Your task to perform on an android device: Open the calendar app, open the side menu, and click the "Day" option Image 0: 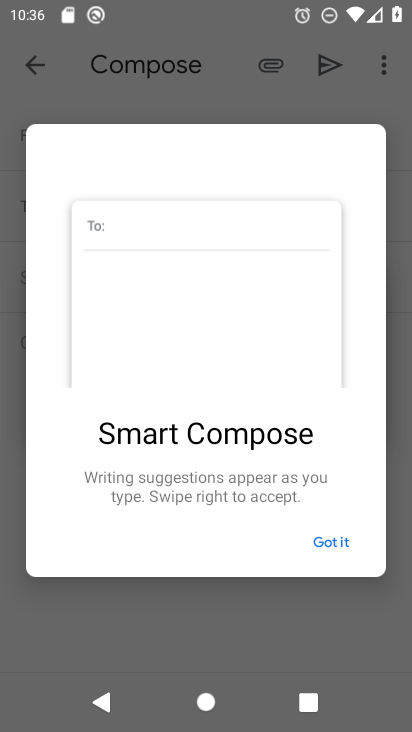
Step 0: press home button
Your task to perform on an android device: Open the calendar app, open the side menu, and click the "Day" option Image 1: 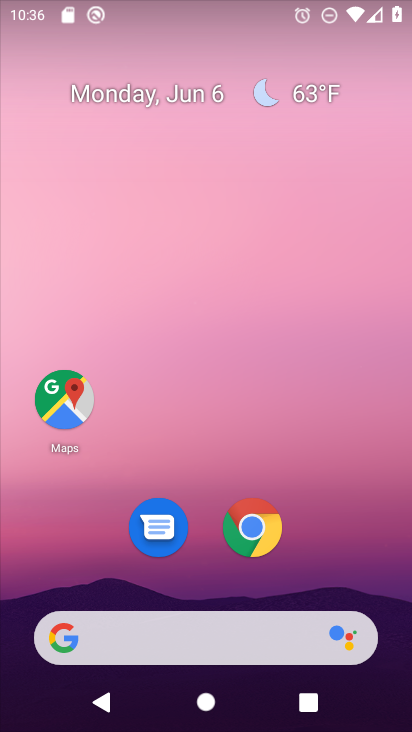
Step 1: drag from (351, 561) to (360, 131)
Your task to perform on an android device: Open the calendar app, open the side menu, and click the "Day" option Image 2: 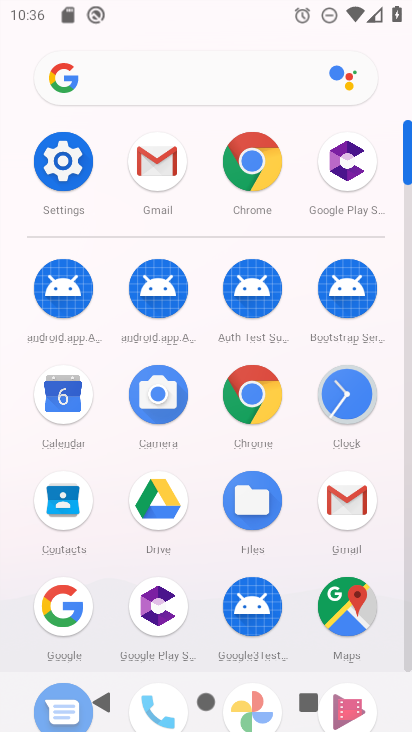
Step 2: click (70, 408)
Your task to perform on an android device: Open the calendar app, open the side menu, and click the "Day" option Image 3: 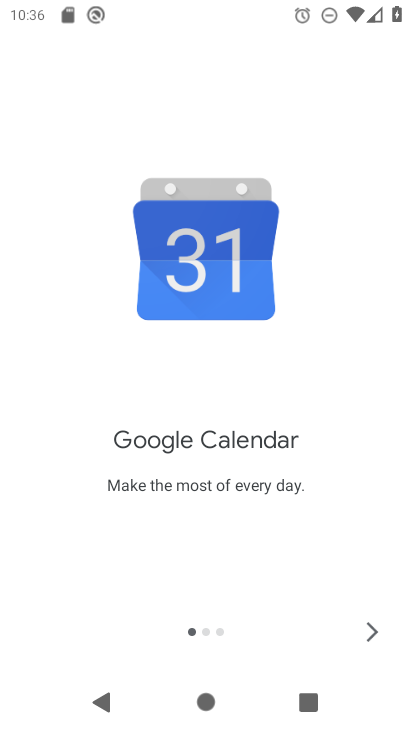
Step 3: click (367, 628)
Your task to perform on an android device: Open the calendar app, open the side menu, and click the "Day" option Image 4: 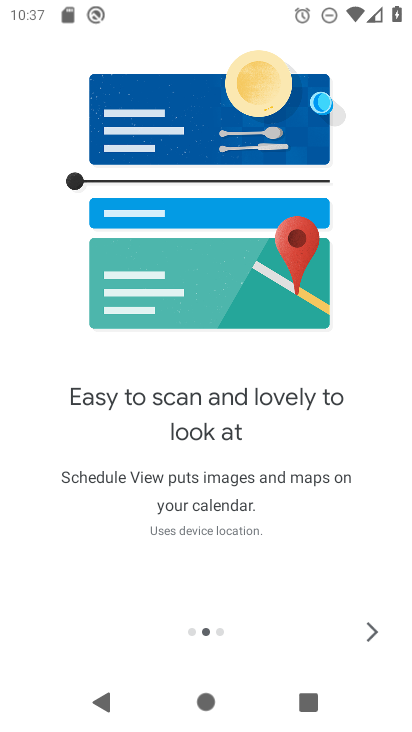
Step 4: click (361, 626)
Your task to perform on an android device: Open the calendar app, open the side menu, and click the "Day" option Image 5: 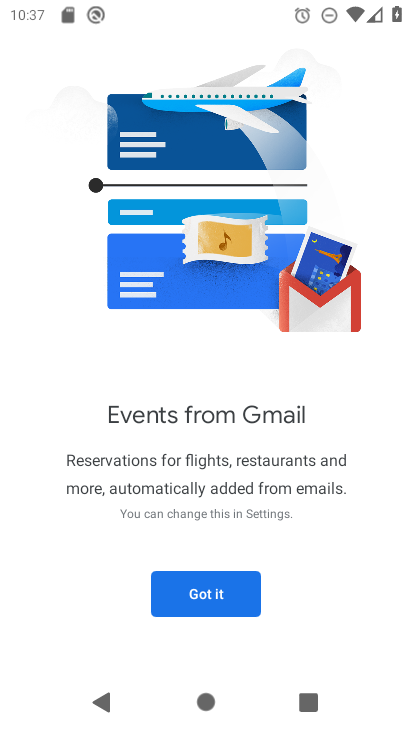
Step 5: click (168, 601)
Your task to perform on an android device: Open the calendar app, open the side menu, and click the "Day" option Image 6: 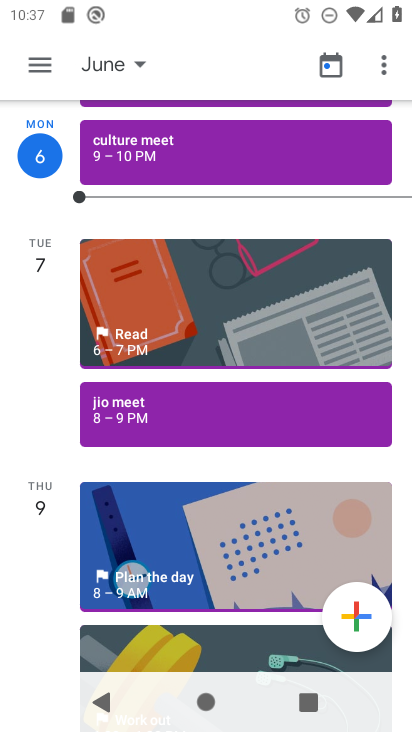
Step 6: click (48, 71)
Your task to perform on an android device: Open the calendar app, open the side menu, and click the "Day" option Image 7: 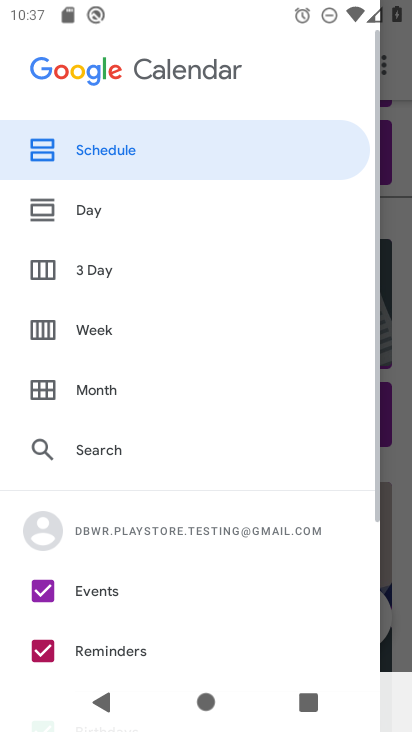
Step 7: click (149, 219)
Your task to perform on an android device: Open the calendar app, open the side menu, and click the "Day" option Image 8: 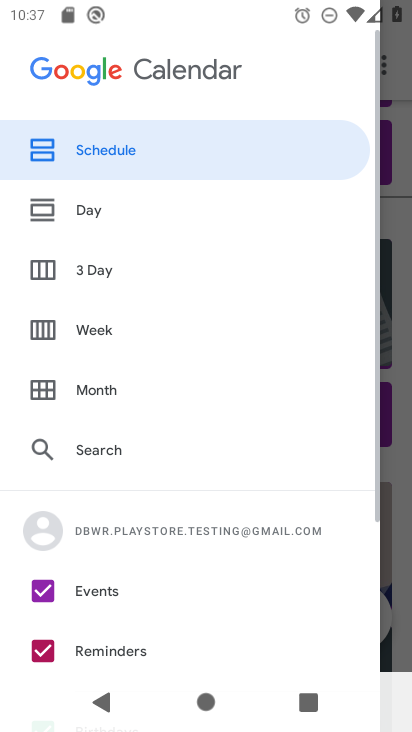
Step 8: click (109, 215)
Your task to perform on an android device: Open the calendar app, open the side menu, and click the "Day" option Image 9: 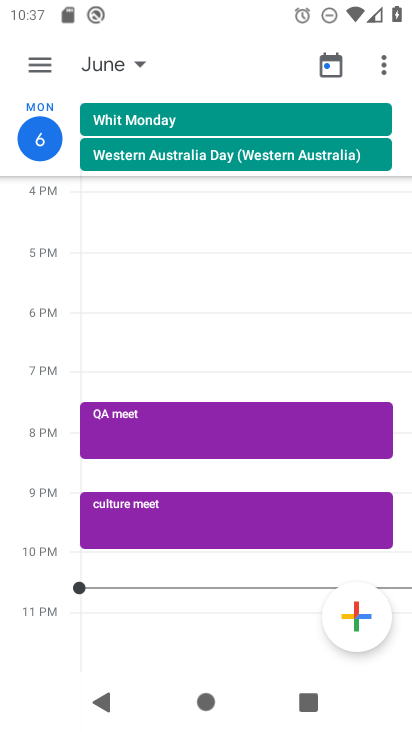
Step 9: task complete